Your task to perform on an android device: Show me popular games on the Play Store Image 0: 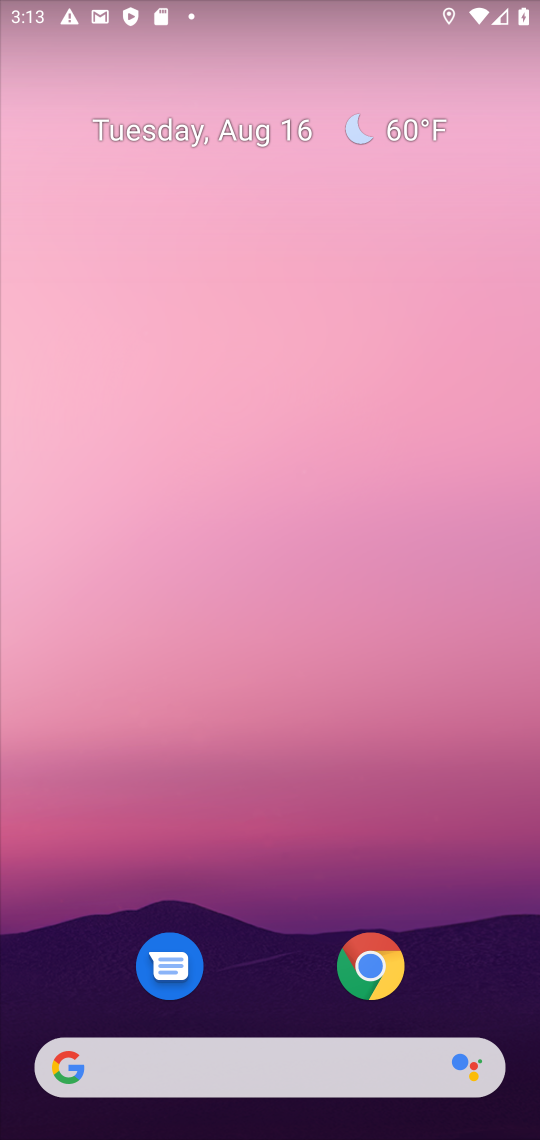
Step 0: drag from (17, 1091) to (301, 247)
Your task to perform on an android device: Show me popular games on the Play Store Image 1: 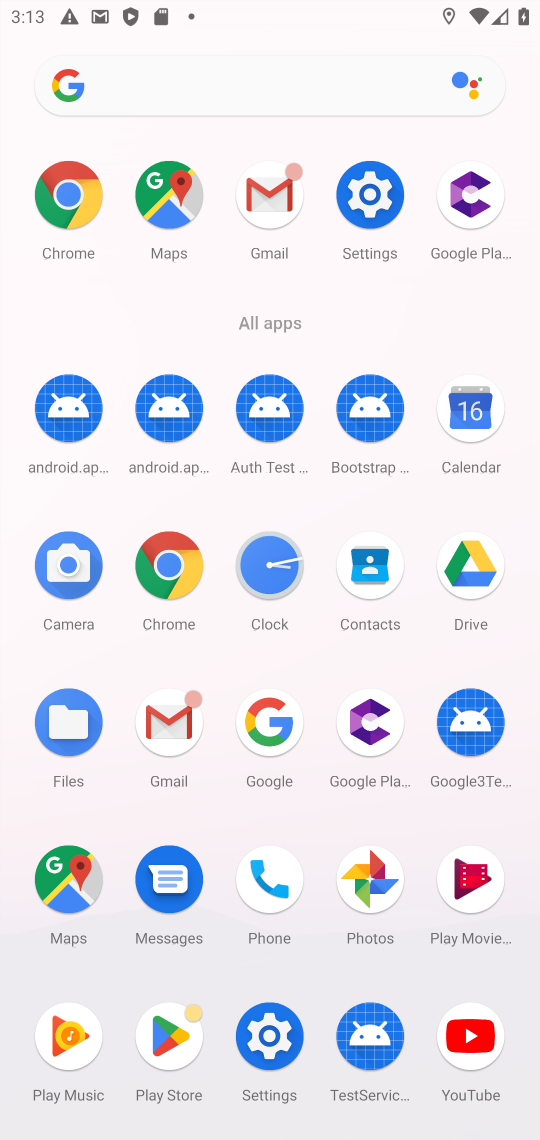
Step 1: click (154, 1033)
Your task to perform on an android device: Show me popular games on the Play Store Image 2: 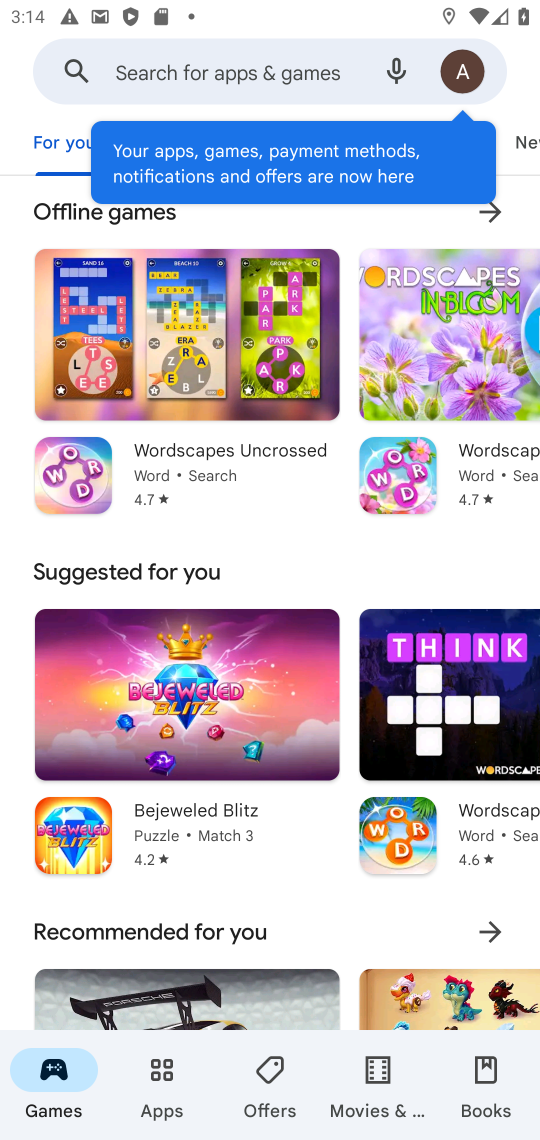
Step 2: click (146, 68)
Your task to perform on an android device: Show me popular games on the Play Store Image 3: 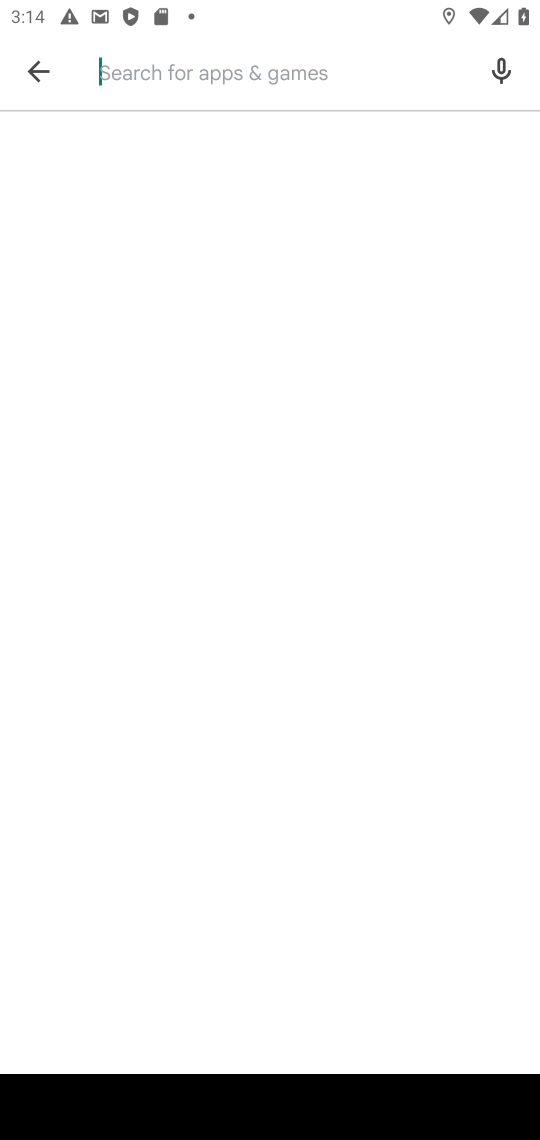
Step 3: type "popular games"
Your task to perform on an android device: Show me popular games on the Play Store Image 4: 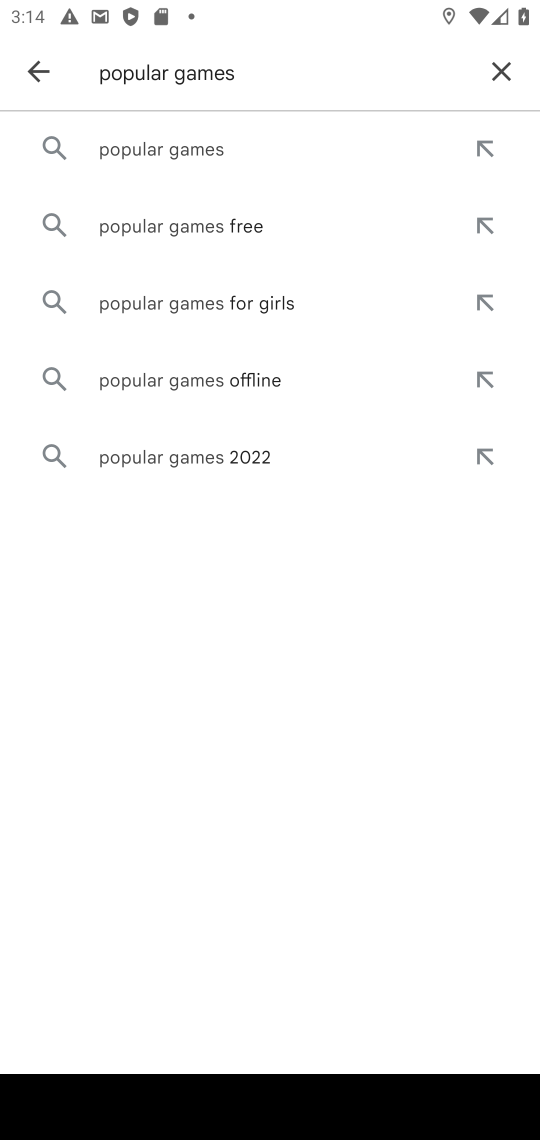
Step 4: click (139, 146)
Your task to perform on an android device: Show me popular games on the Play Store Image 5: 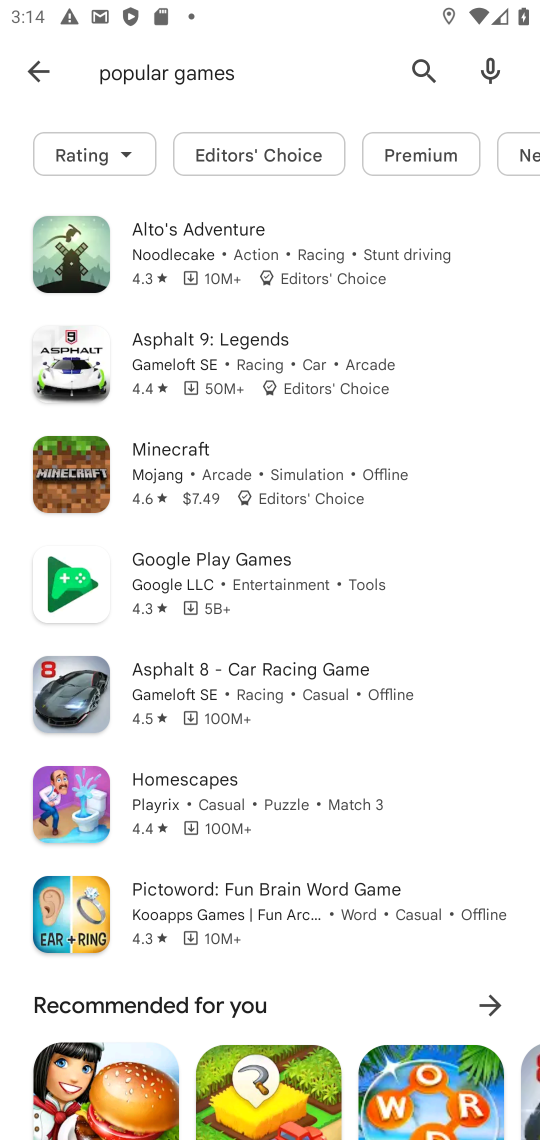
Step 5: task complete